Your task to perform on an android device: clear all cookies in the chrome app Image 0: 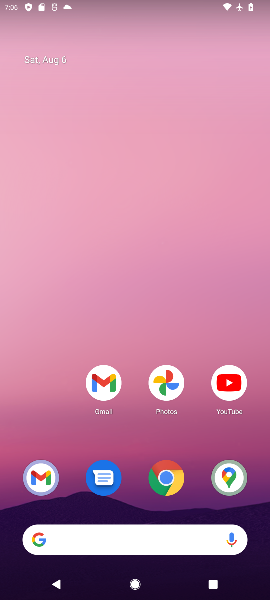
Step 0: press home button
Your task to perform on an android device: clear all cookies in the chrome app Image 1: 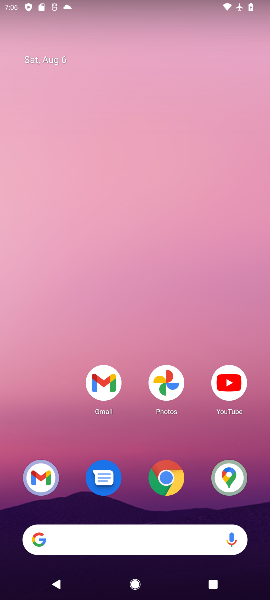
Step 1: click (163, 490)
Your task to perform on an android device: clear all cookies in the chrome app Image 2: 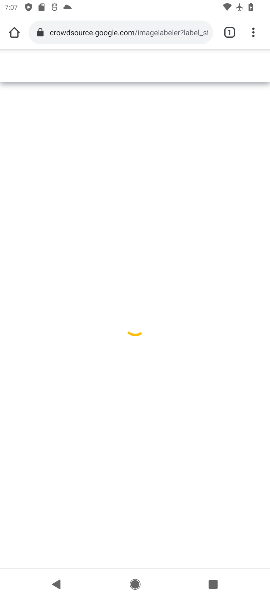
Step 2: drag from (248, 32) to (159, 431)
Your task to perform on an android device: clear all cookies in the chrome app Image 3: 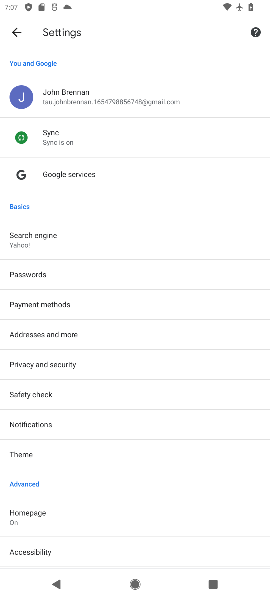
Step 3: click (43, 359)
Your task to perform on an android device: clear all cookies in the chrome app Image 4: 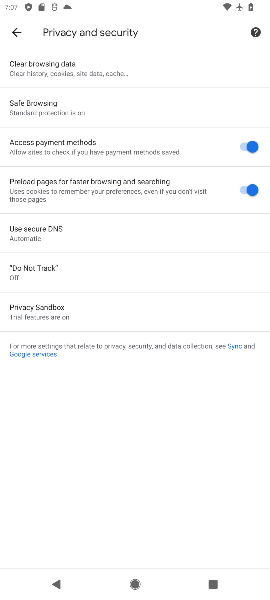
Step 4: click (60, 61)
Your task to perform on an android device: clear all cookies in the chrome app Image 5: 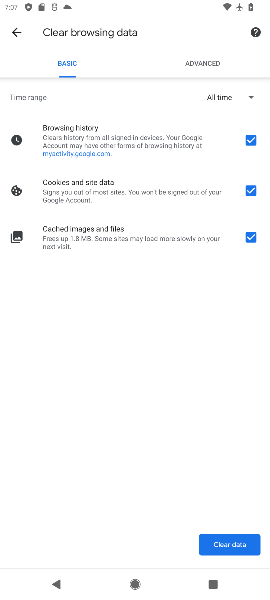
Step 5: click (248, 143)
Your task to perform on an android device: clear all cookies in the chrome app Image 6: 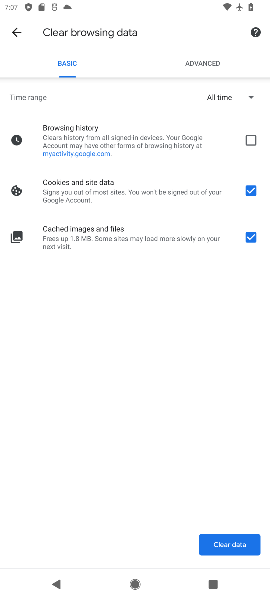
Step 6: click (251, 236)
Your task to perform on an android device: clear all cookies in the chrome app Image 7: 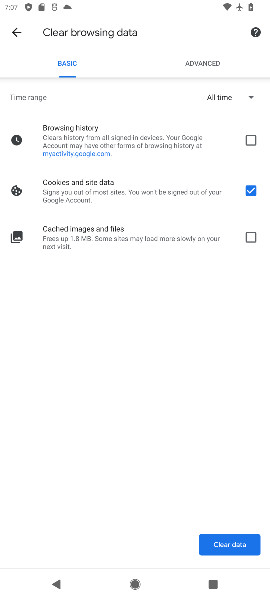
Step 7: click (223, 540)
Your task to perform on an android device: clear all cookies in the chrome app Image 8: 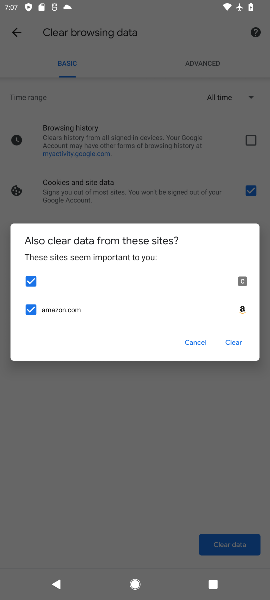
Step 8: click (241, 342)
Your task to perform on an android device: clear all cookies in the chrome app Image 9: 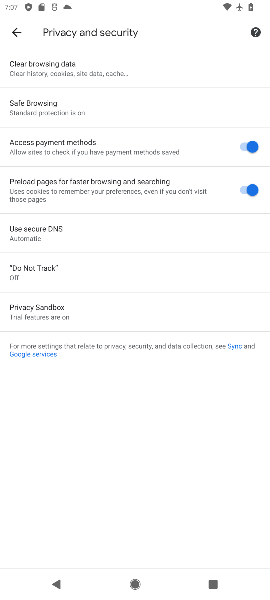
Step 9: task complete